Your task to perform on an android device: find snoozed emails in the gmail app Image 0: 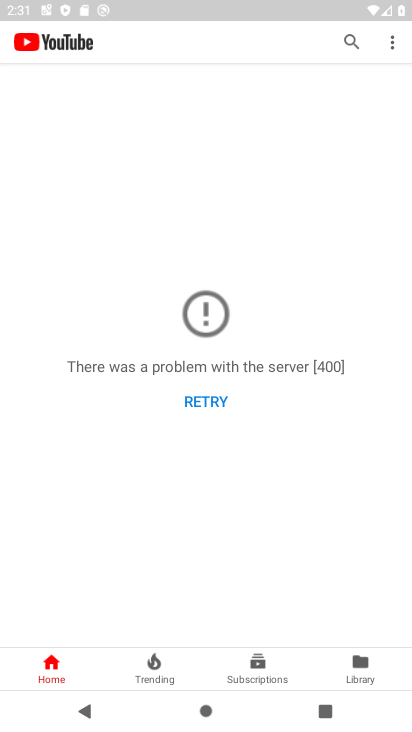
Step 0: press home button
Your task to perform on an android device: find snoozed emails in the gmail app Image 1: 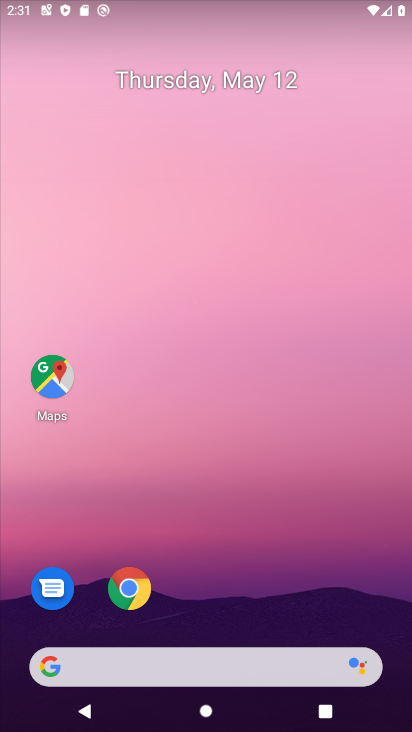
Step 1: drag from (286, 451) to (251, 104)
Your task to perform on an android device: find snoozed emails in the gmail app Image 2: 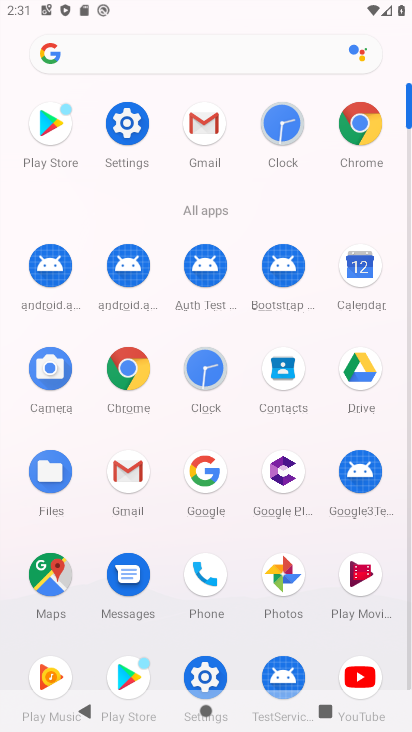
Step 2: click (221, 130)
Your task to perform on an android device: find snoozed emails in the gmail app Image 3: 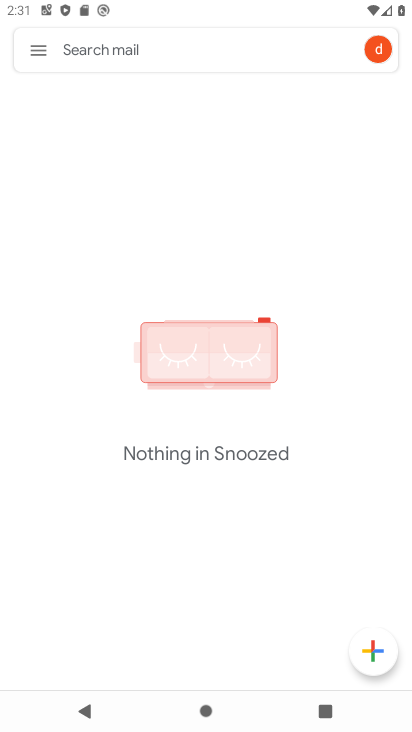
Step 3: click (24, 36)
Your task to perform on an android device: find snoozed emails in the gmail app Image 4: 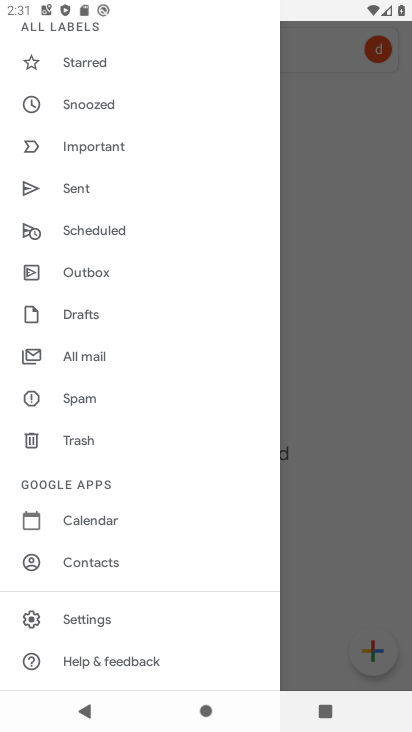
Step 4: click (110, 109)
Your task to perform on an android device: find snoozed emails in the gmail app Image 5: 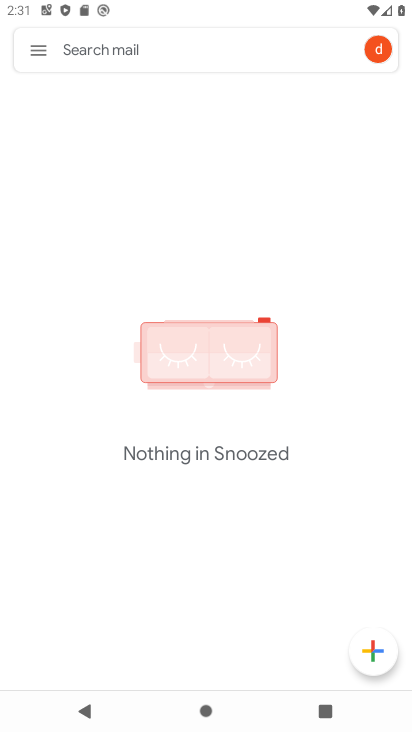
Step 5: task complete